Your task to perform on an android device: Search for pizza restaurants on Maps Image 0: 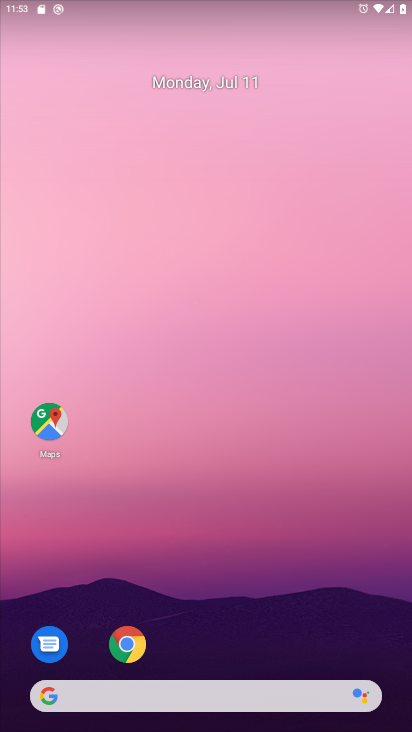
Step 0: click (42, 416)
Your task to perform on an android device: Search for pizza restaurants on Maps Image 1: 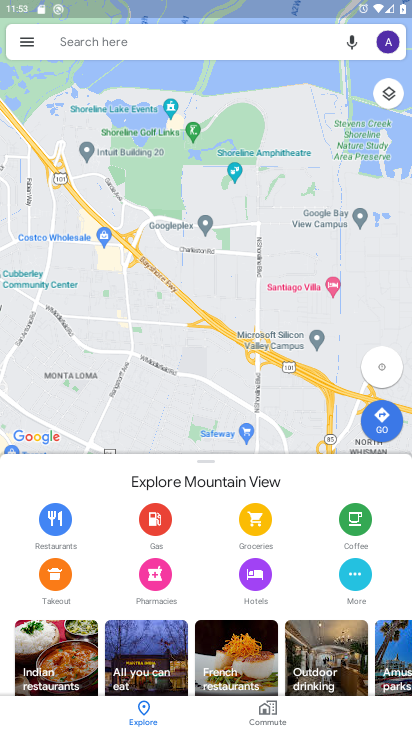
Step 1: click (106, 37)
Your task to perform on an android device: Search for pizza restaurants on Maps Image 2: 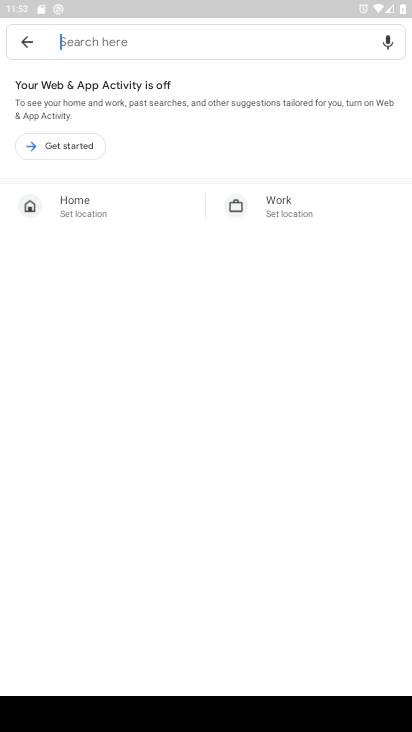
Step 2: type "pizza restaurants "
Your task to perform on an android device: Search for pizza restaurants on Maps Image 3: 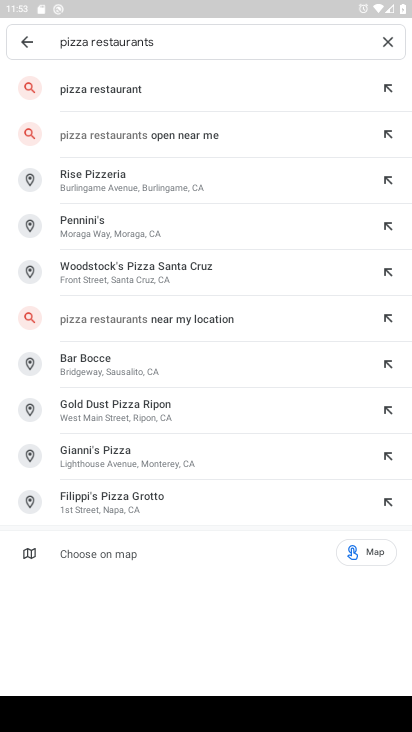
Step 3: click (268, 73)
Your task to perform on an android device: Search for pizza restaurants on Maps Image 4: 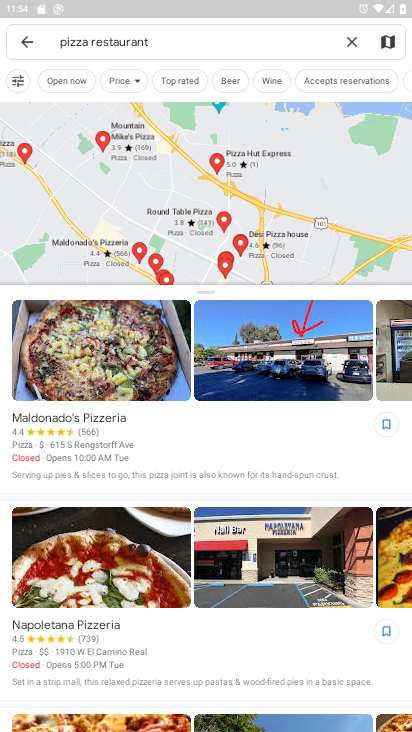
Step 4: task complete